Your task to perform on an android device: toggle sleep mode Image 0: 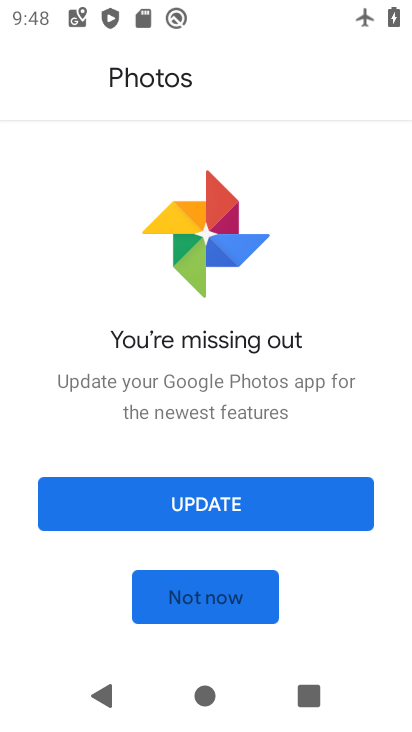
Step 0: press back button
Your task to perform on an android device: toggle sleep mode Image 1: 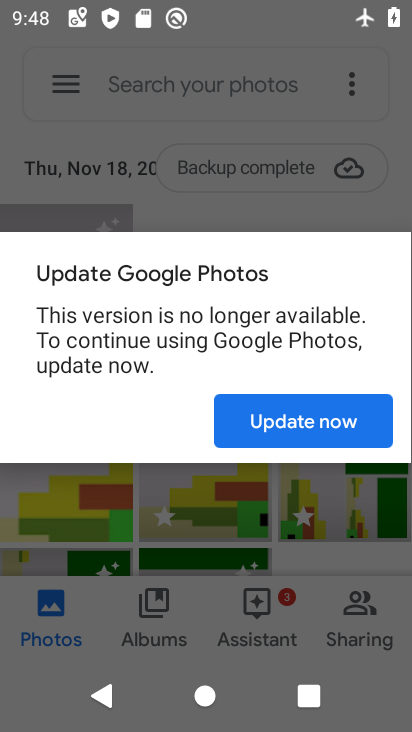
Step 1: press home button
Your task to perform on an android device: toggle sleep mode Image 2: 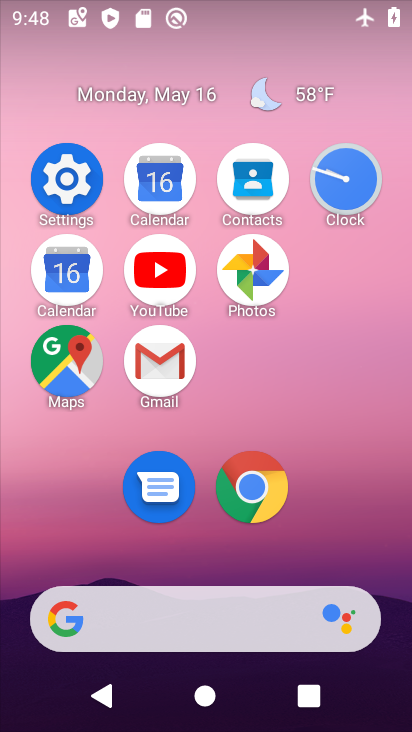
Step 2: click (80, 192)
Your task to perform on an android device: toggle sleep mode Image 3: 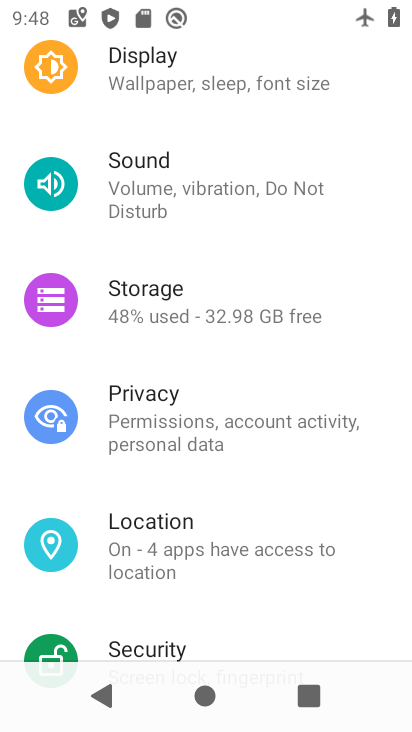
Step 3: drag from (273, 271) to (253, 462)
Your task to perform on an android device: toggle sleep mode Image 4: 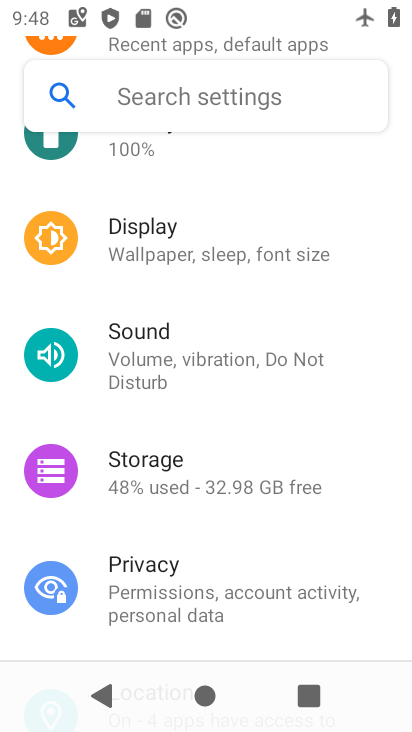
Step 4: click (261, 263)
Your task to perform on an android device: toggle sleep mode Image 5: 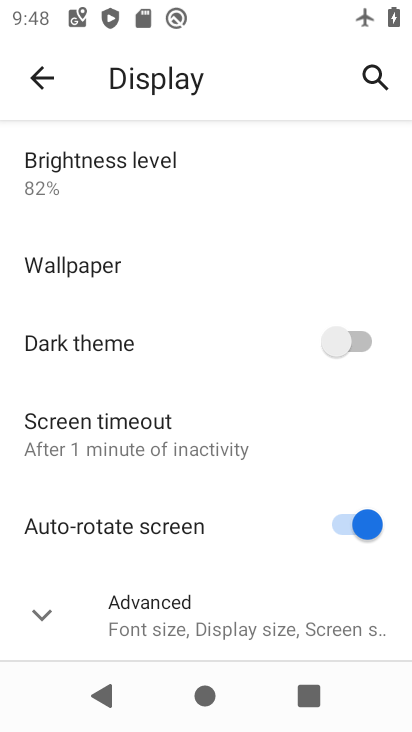
Step 5: click (130, 439)
Your task to perform on an android device: toggle sleep mode Image 6: 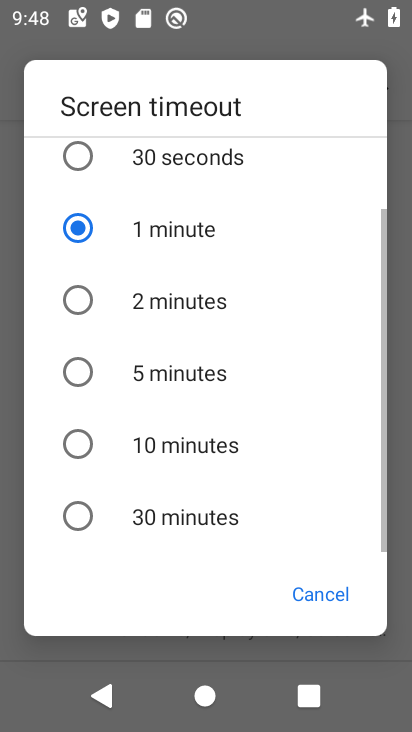
Step 6: click (152, 318)
Your task to perform on an android device: toggle sleep mode Image 7: 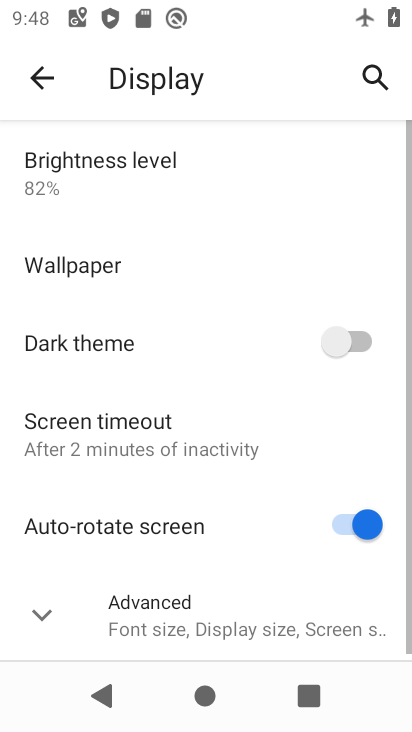
Step 7: task complete